Your task to perform on an android device: Open network settings Image 0: 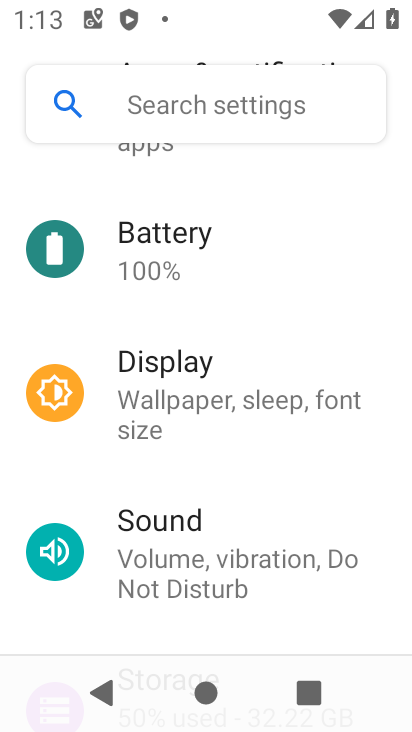
Step 0: press home button
Your task to perform on an android device: Open network settings Image 1: 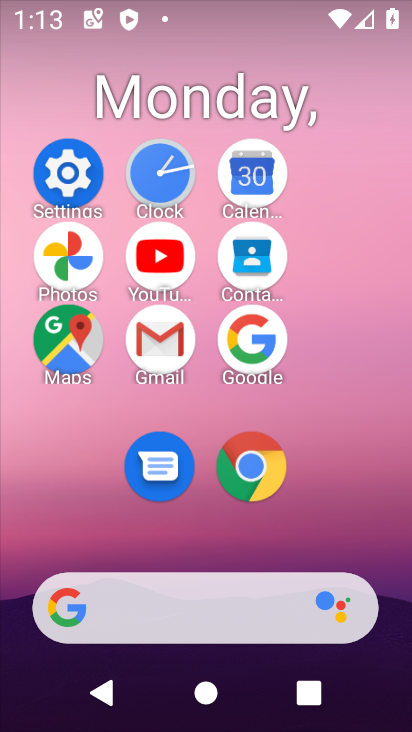
Step 1: click (53, 166)
Your task to perform on an android device: Open network settings Image 2: 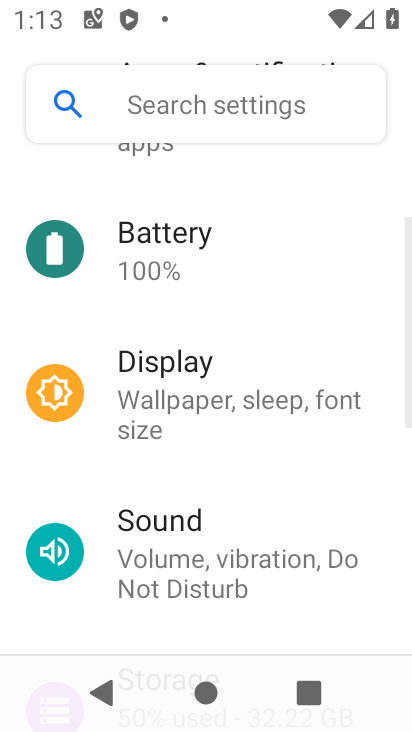
Step 2: drag from (290, 225) to (312, 534)
Your task to perform on an android device: Open network settings Image 3: 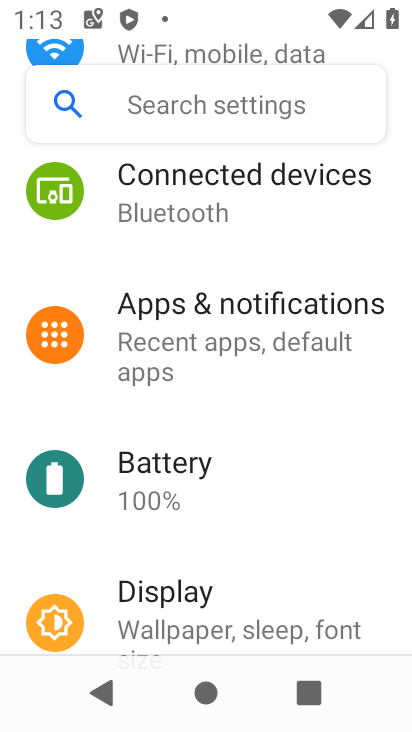
Step 3: drag from (306, 198) to (312, 479)
Your task to perform on an android device: Open network settings Image 4: 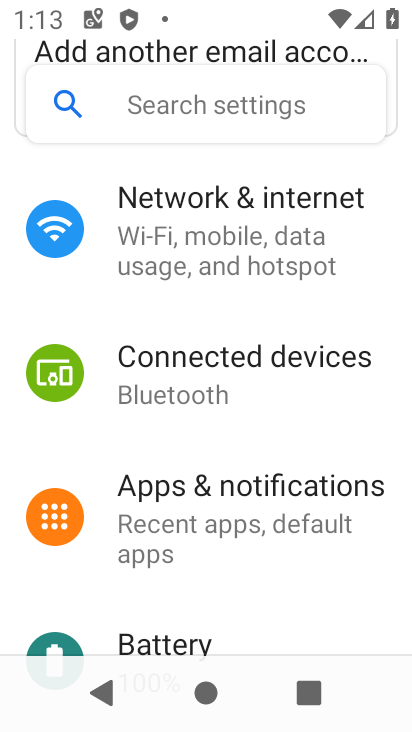
Step 4: click (283, 214)
Your task to perform on an android device: Open network settings Image 5: 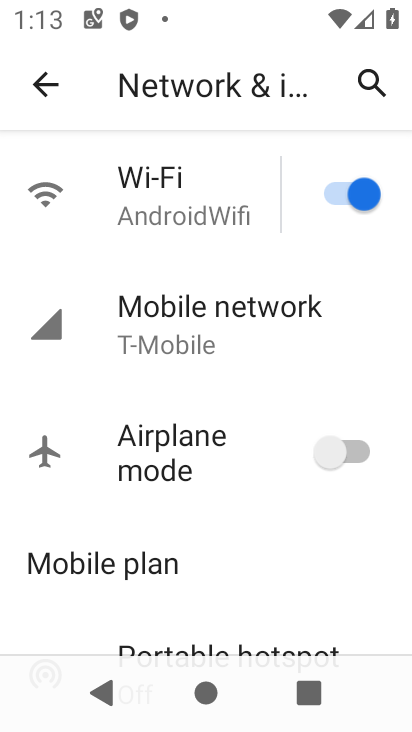
Step 5: task complete